Your task to perform on an android device: show emergency info Image 0: 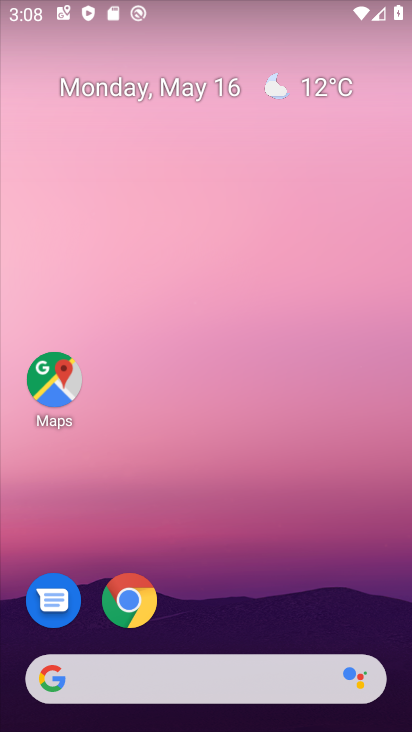
Step 0: drag from (237, 642) to (370, 39)
Your task to perform on an android device: show emergency info Image 1: 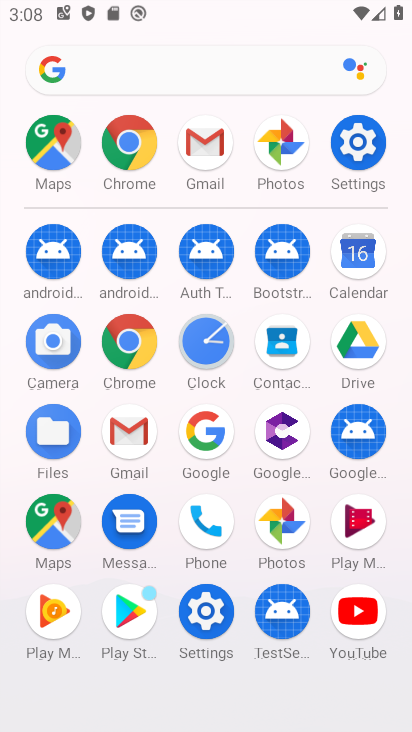
Step 1: click (195, 606)
Your task to perform on an android device: show emergency info Image 2: 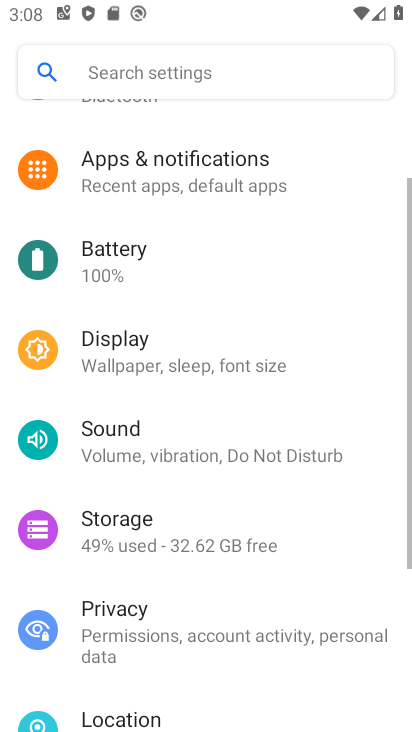
Step 2: drag from (156, 681) to (127, 30)
Your task to perform on an android device: show emergency info Image 3: 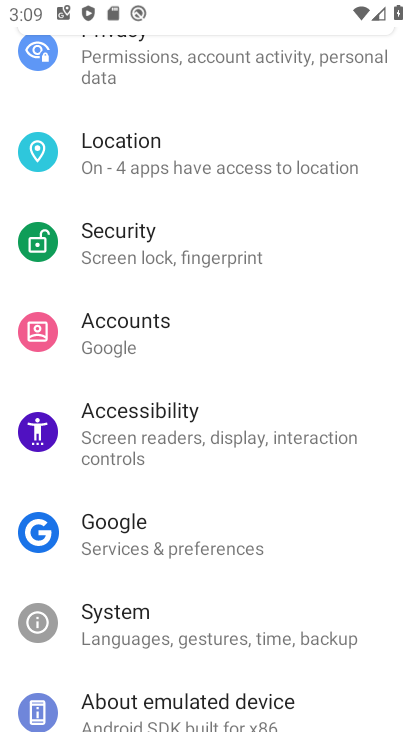
Step 3: click (157, 680)
Your task to perform on an android device: show emergency info Image 4: 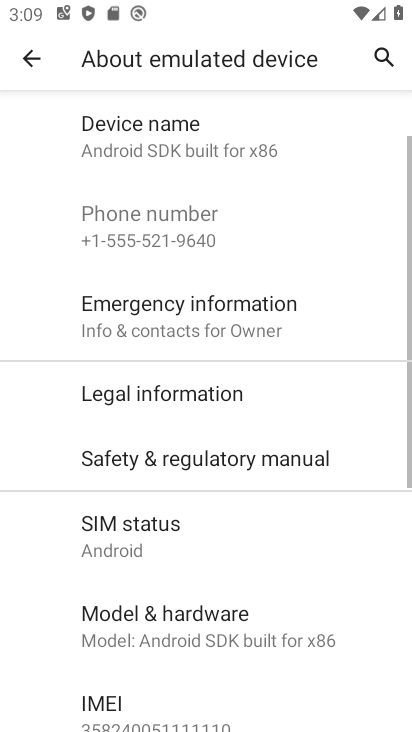
Step 4: click (146, 297)
Your task to perform on an android device: show emergency info Image 5: 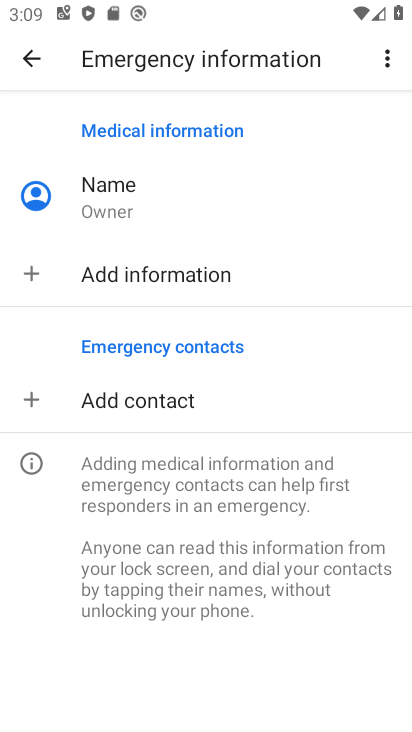
Step 5: task complete